Your task to perform on an android device: Open calendar and show me the first week of next month Image 0: 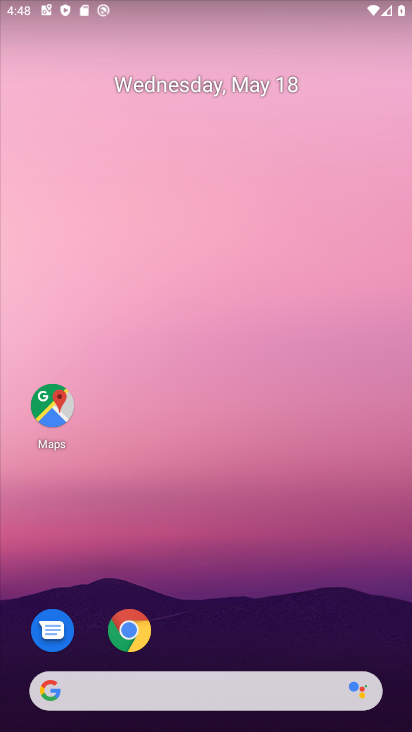
Step 0: drag from (236, 604) to (221, 136)
Your task to perform on an android device: Open calendar and show me the first week of next month Image 1: 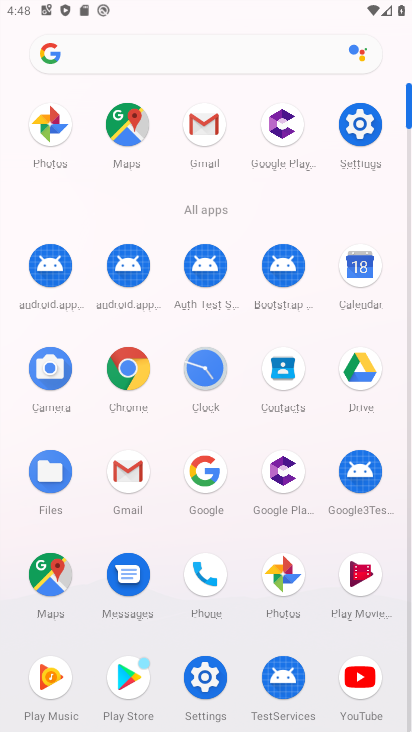
Step 1: click (361, 268)
Your task to perform on an android device: Open calendar and show me the first week of next month Image 2: 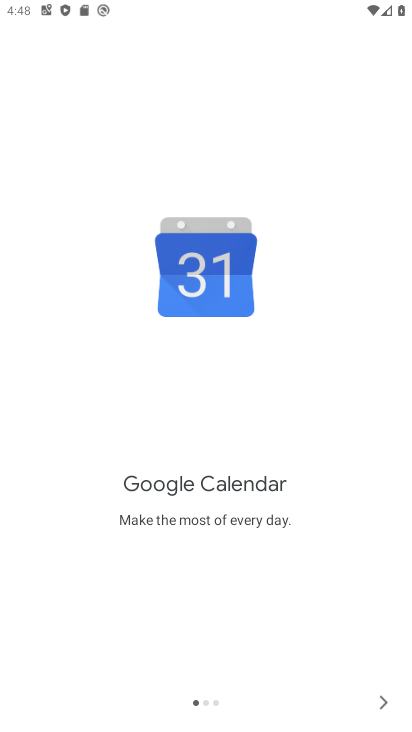
Step 2: click (381, 700)
Your task to perform on an android device: Open calendar and show me the first week of next month Image 3: 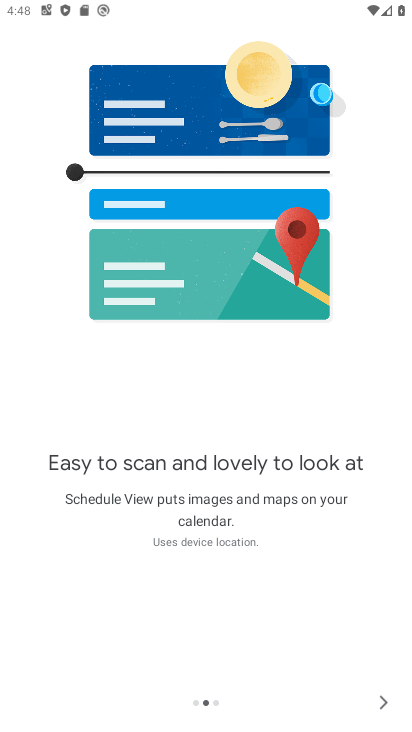
Step 3: click (381, 700)
Your task to perform on an android device: Open calendar and show me the first week of next month Image 4: 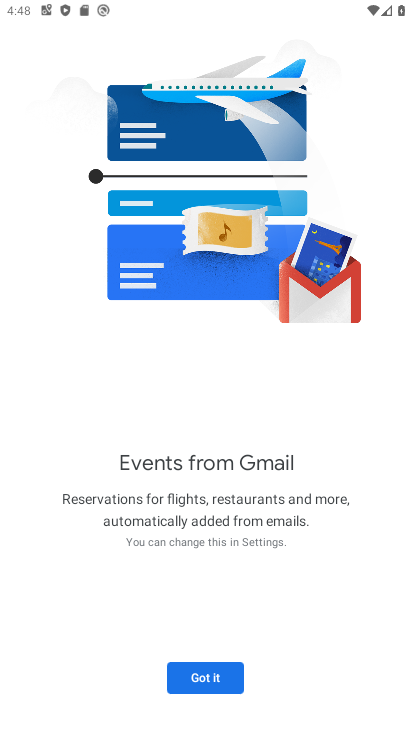
Step 4: click (219, 678)
Your task to perform on an android device: Open calendar and show me the first week of next month Image 5: 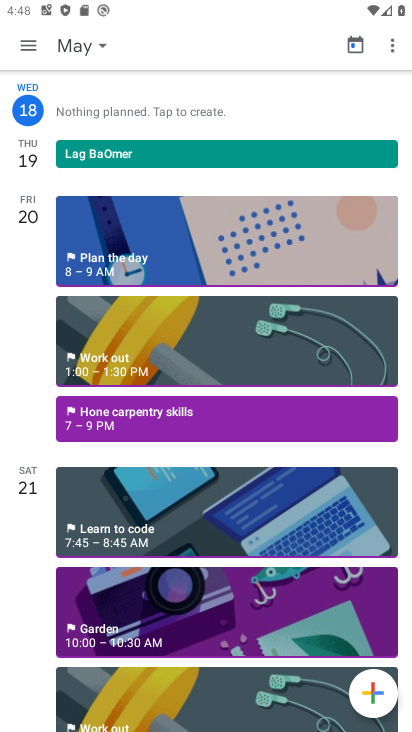
Step 5: click (358, 48)
Your task to perform on an android device: Open calendar and show me the first week of next month Image 6: 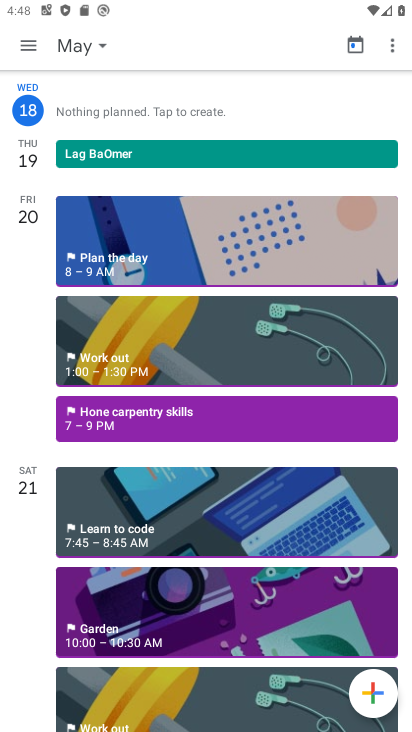
Step 6: click (99, 45)
Your task to perform on an android device: Open calendar and show me the first week of next month Image 7: 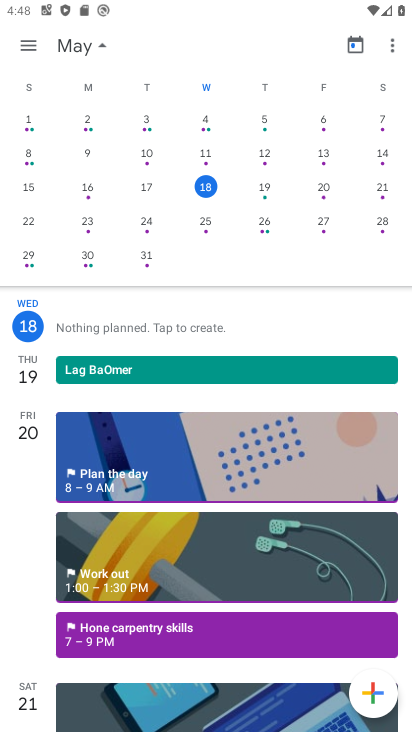
Step 7: drag from (361, 190) to (4, 177)
Your task to perform on an android device: Open calendar and show me the first week of next month Image 8: 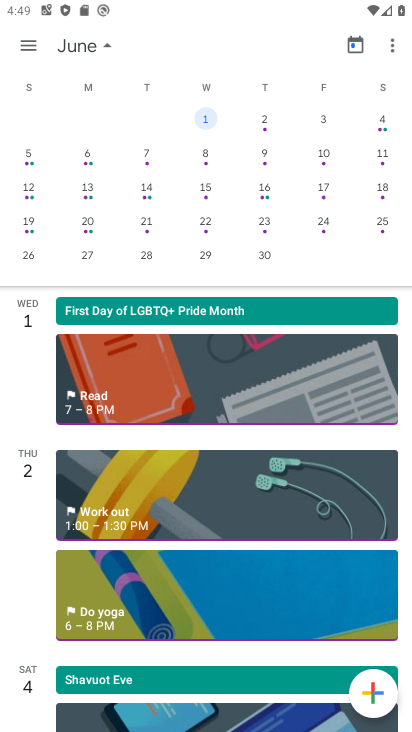
Step 8: click (89, 153)
Your task to perform on an android device: Open calendar and show me the first week of next month Image 9: 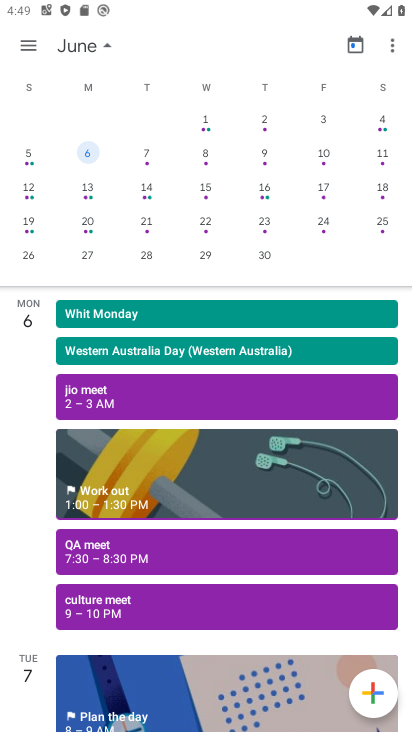
Step 9: click (27, 50)
Your task to perform on an android device: Open calendar and show me the first week of next month Image 10: 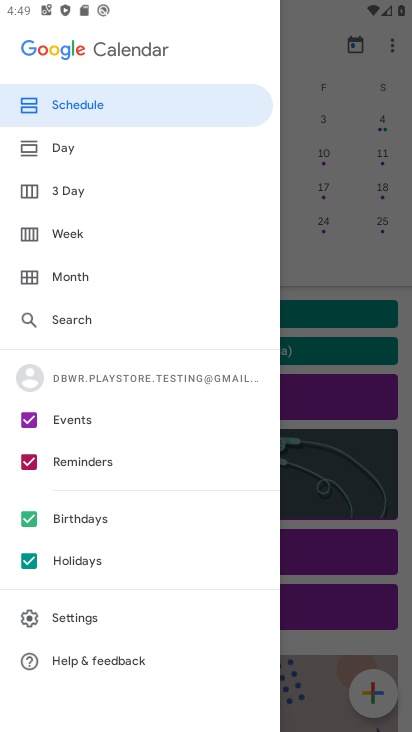
Step 10: click (71, 235)
Your task to perform on an android device: Open calendar and show me the first week of next month Image 11: 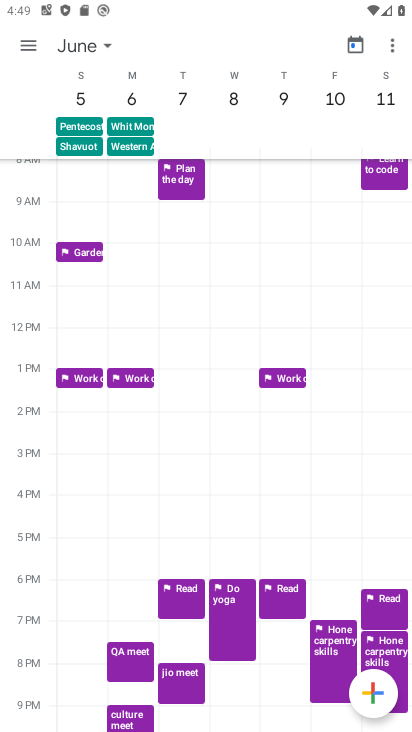
Step 11: task complete